Your task to perform on an android device: turn on improve location accuracy Image 0: 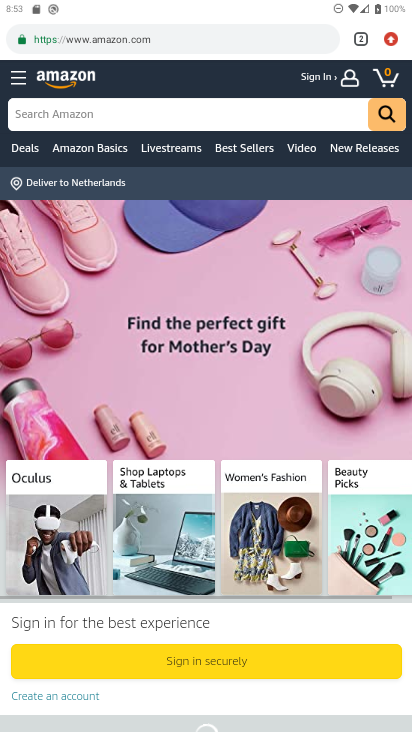
Step 0: press home button
Your task to perform on an android device: turn on improve location accuracy Image 1: 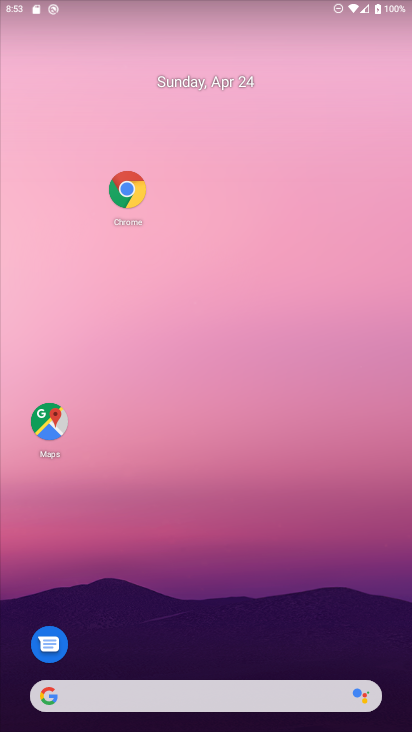
Step 1: drag from (216, 554) to (235, 173)
Your task to perform on an android device: turn on improve location accuracy Image 2: 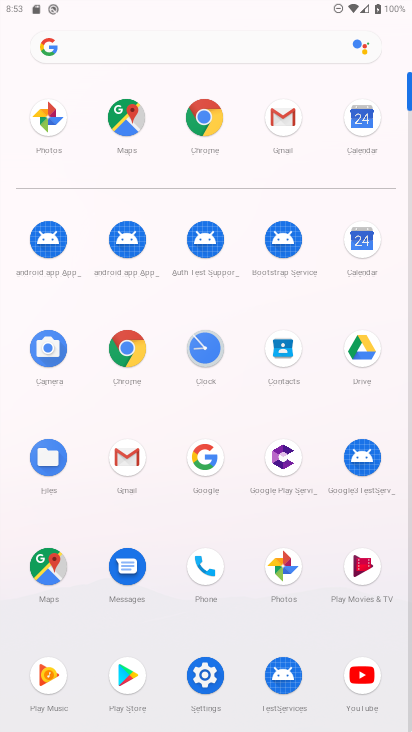
Step 2: click (207, 685)
Your task to perform on an android device: turn on improve location accuracy Image 3: 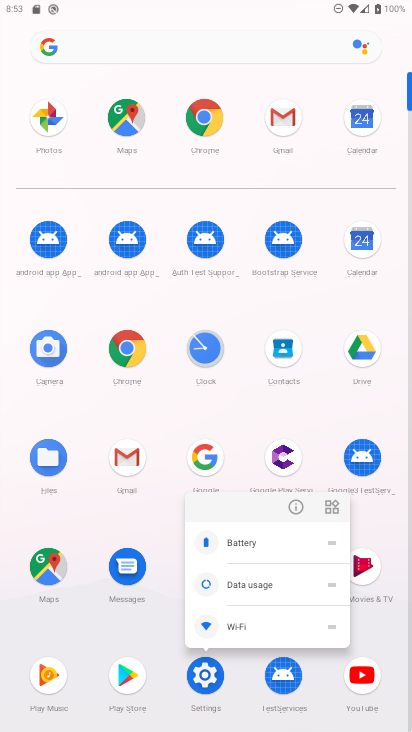
Step 3: click (290, 504)
Your task to perform on an android device: turn on improve location accuracy Image 4: 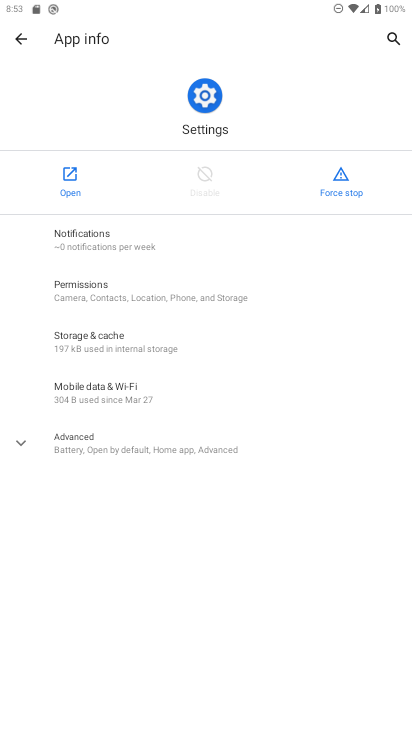
Step 4: click (51, 166)
Your task to perform on an android device: turn on improve location accuracy Image 5: 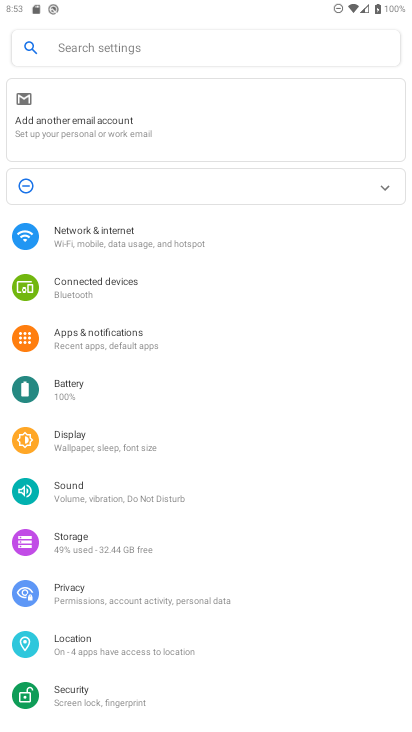
Step 5: click (124, 636)
Your task to perform on an android device: turn on improve location accuracy Image 6: 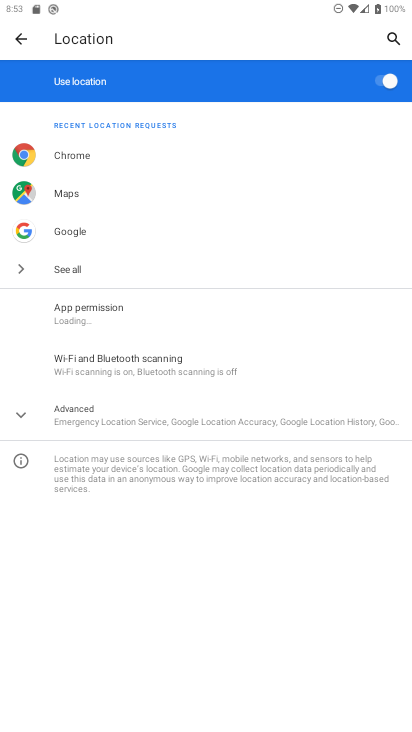
Step 6: click (158, 395)
Your task to perform on an android device: turn on improve location accuracy Image 7: 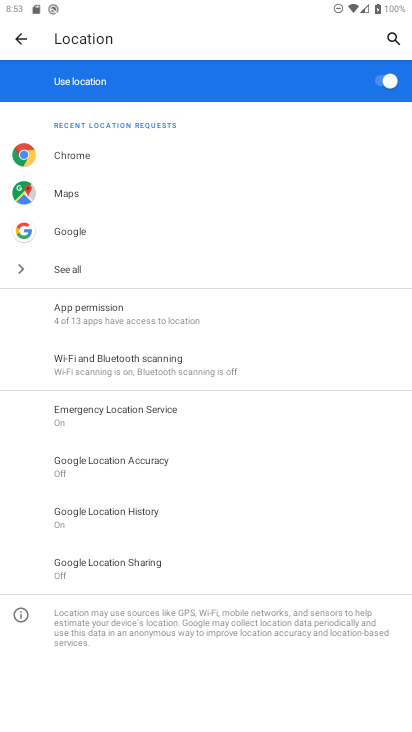
Step 7: click (154, 452)
Your task to perform on an android device: turn on improve location accuracy Image 8: 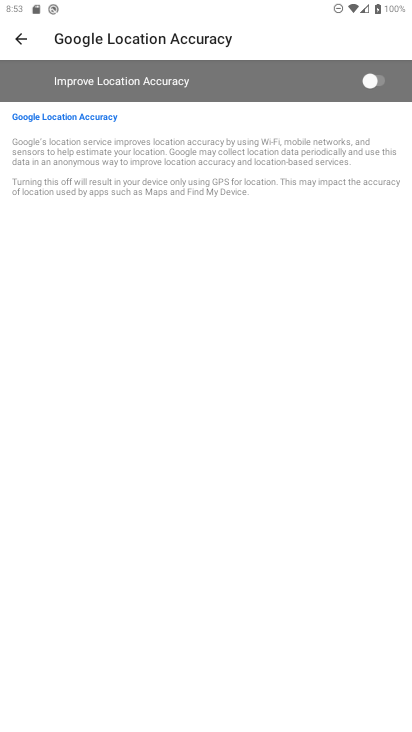
Step 8: click (363, 93)
Your task to perform on an android device: turn on improve location accuracy Image 9: 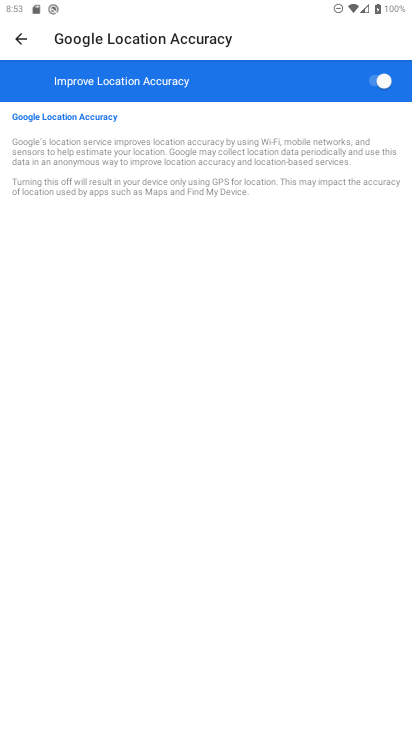
Step 9: task complete